Your task to perform on an android device: Open Maps and search for coffee Image 0: 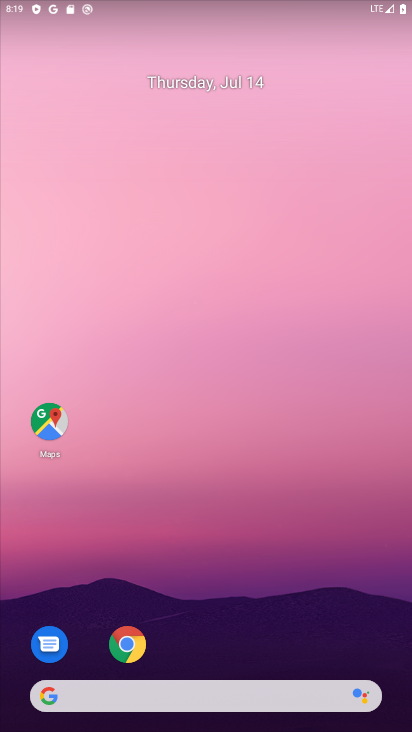
Step 0: drag from (258, 670) to (320, 167)
Your task to perform on an android device: Open Maps and search for coffee Image 1: 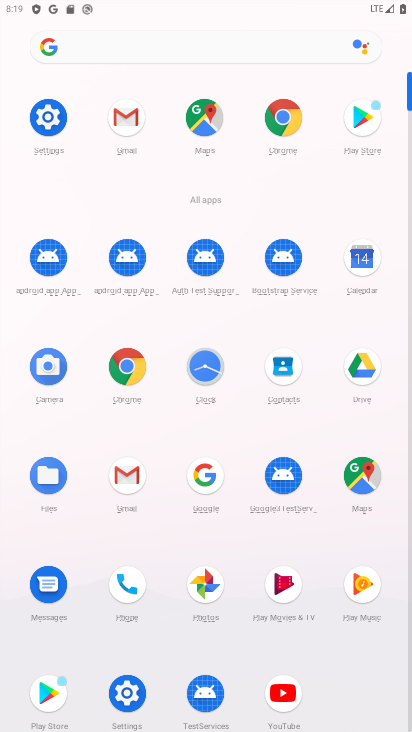
Step 1: click (358, 477)
Your task to perform on an android device: Open Maps and search for coffee Image 2: 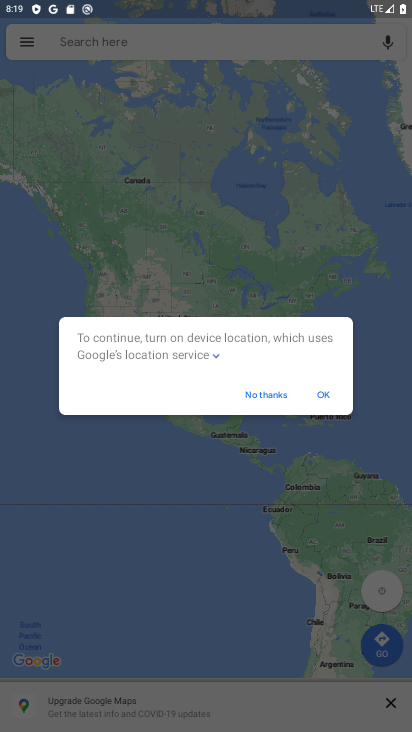
Step 2: click (332, 392)
Your task to perform on an android device: Open Maps and search for coffee Image 3: 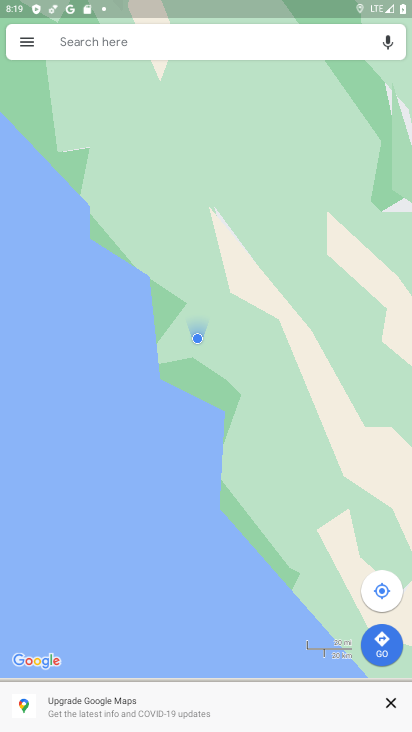
Step 3: click (120, 54)
Your task to perform on an android device: Open Maps and search for coffee Image 4: 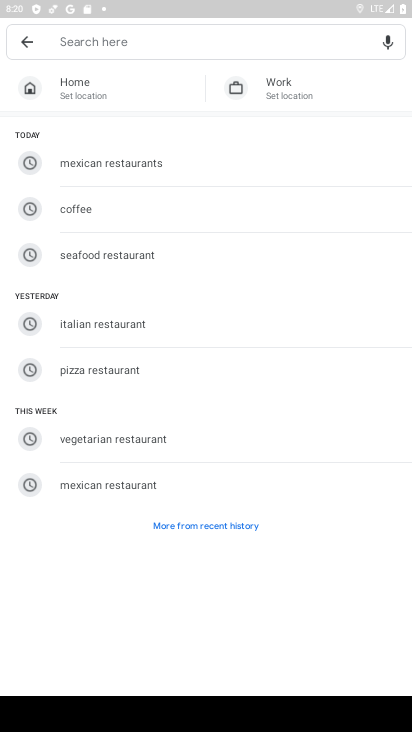
Step 4: type "Coffee "
Your task to perform on an android device: Open Maps and search for coffee Image 5: 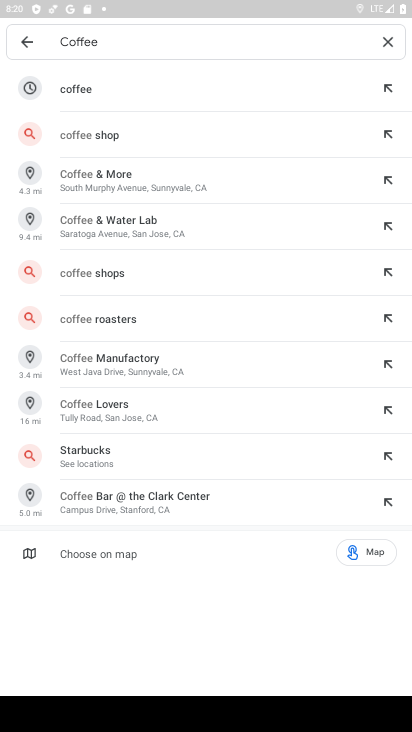
Step 5: click (148, 104)
Your task to perform on an android device: Open Maps and search for coffee Image 6: 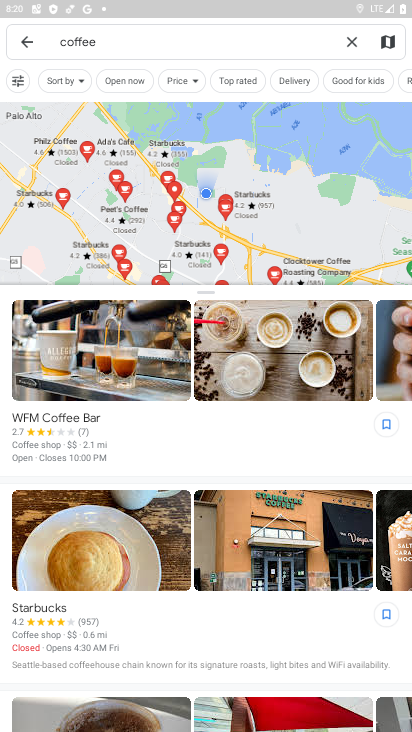
Step 6: task complete